Your task to perform on an android device: Clear the cart on target.com. Add "logitech g933" to the cart on target.com Image 0: 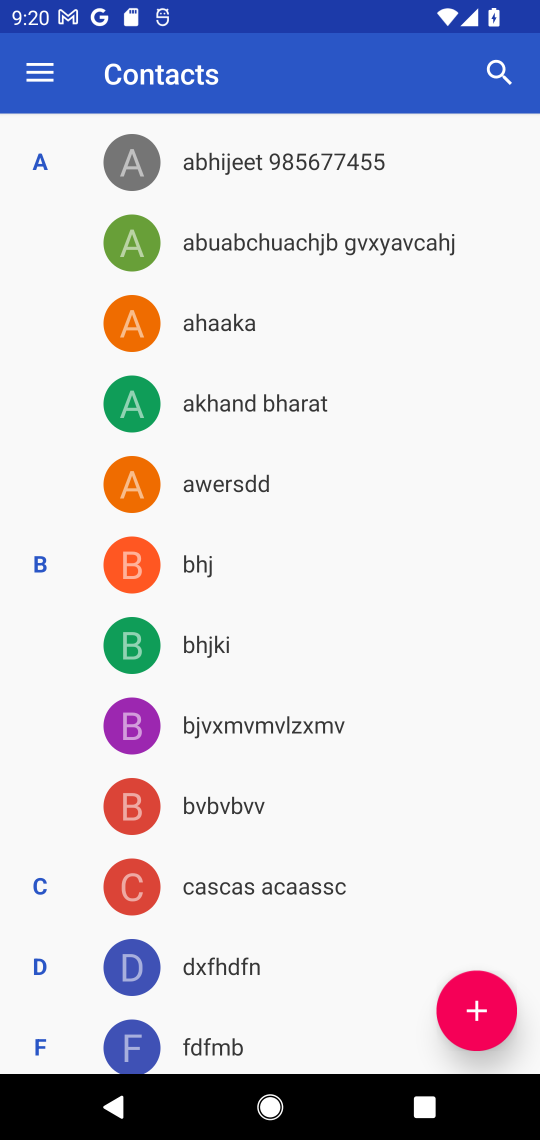
Step 0: press home button
Your task to perform on an android device: Clear the cart on target.com. Add "logitech g933" to the cart on target.com Image 1: 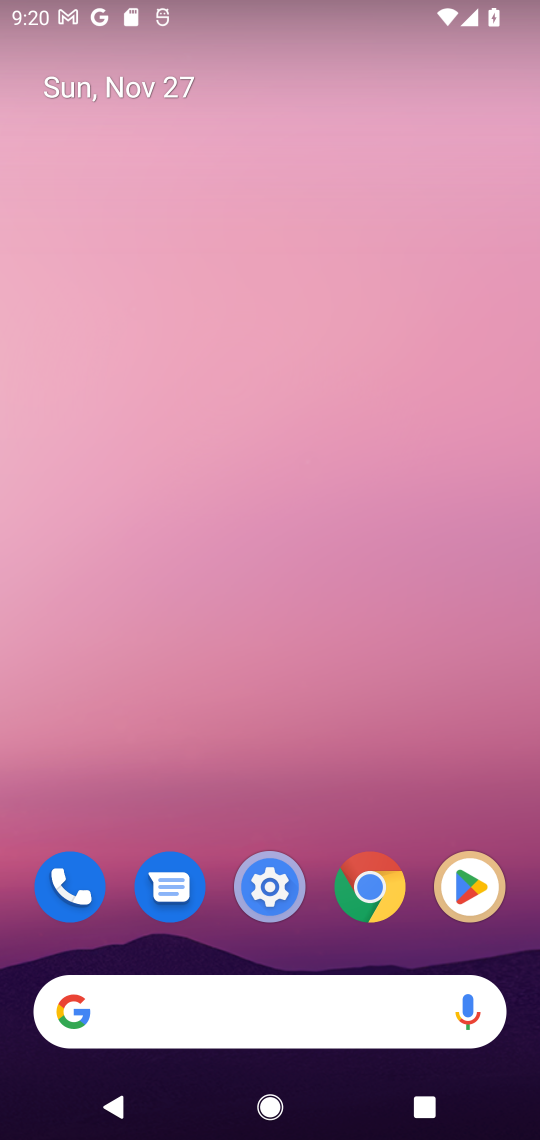
Step 1: click (276, 1025)
Your task to perform on an android device: Clear the cart on target.com. Add "logitech g933" to the cart on target.com Image 2: 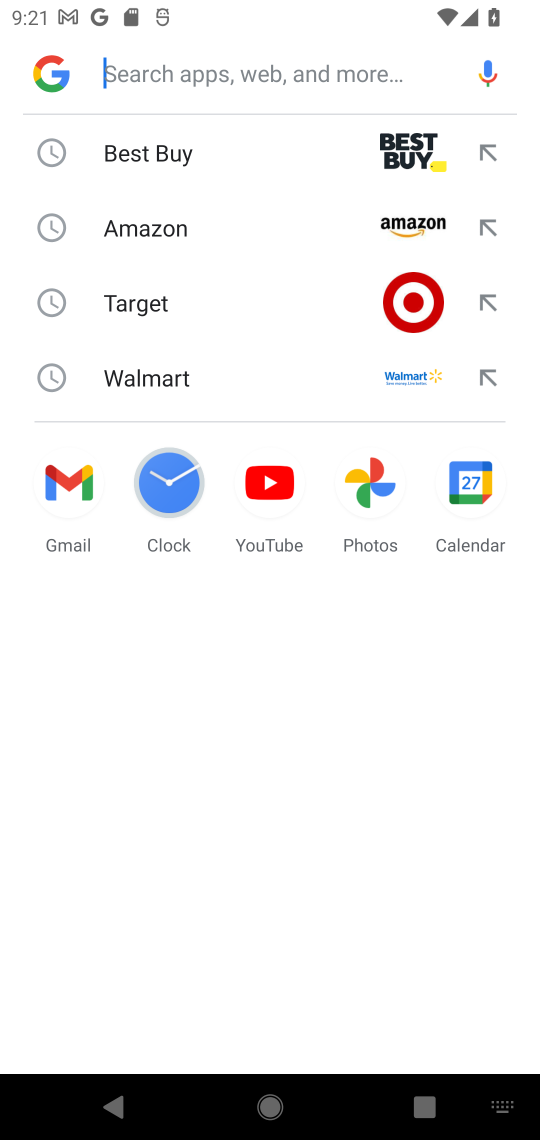
Step 2: click (276, 315)
Your task to perform on an android device: Clear the cart on target.com. Add "logitech g933" to the cart on target.com Image 3: 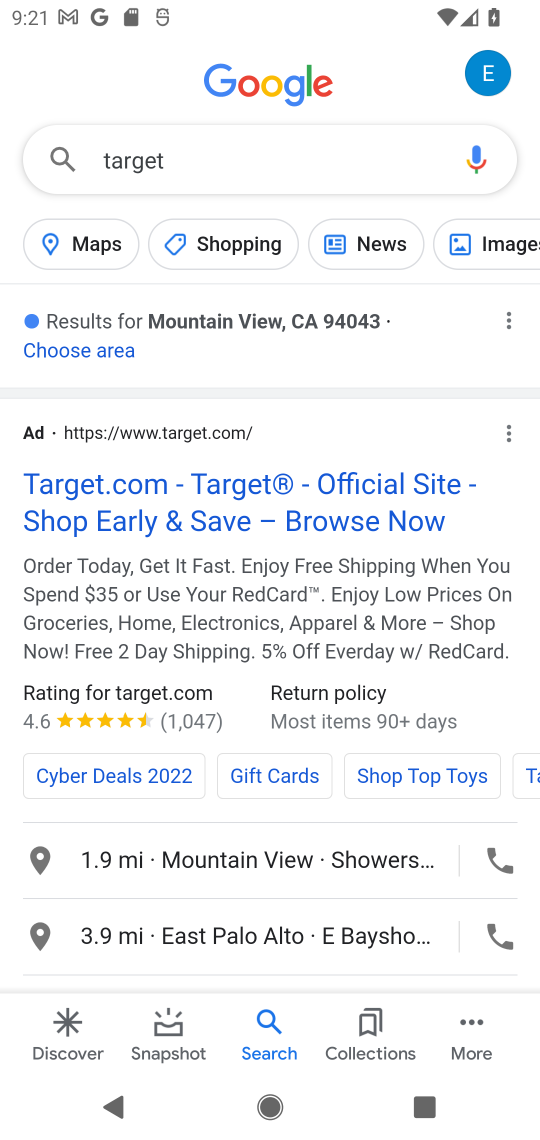
Step 3: click (310, 493)
Your task to perform on an android device: Clear the cart on target.com. Add "logitech g933" to the cart on target.com Image 4: 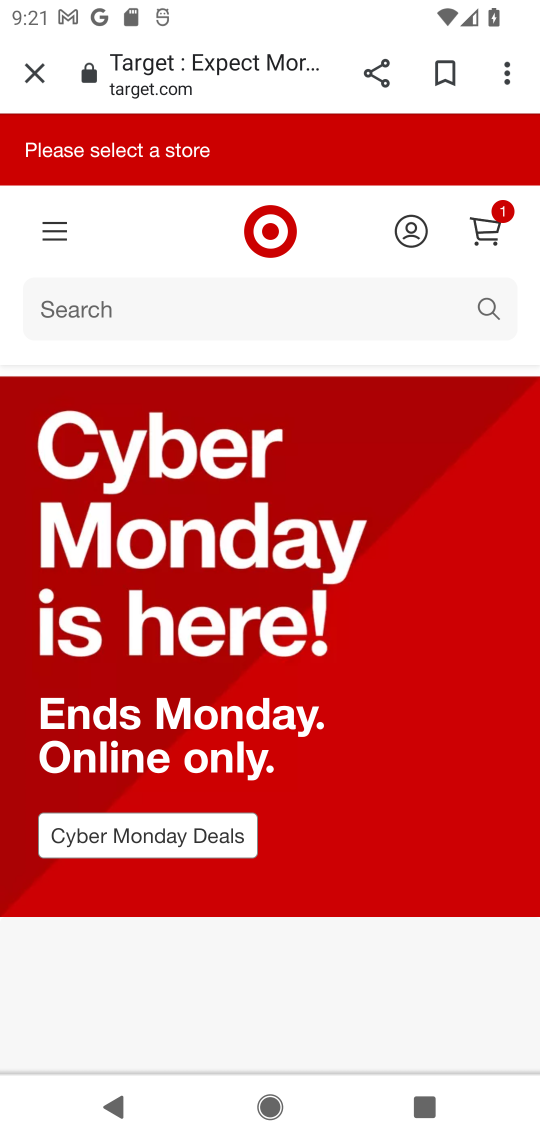
Step 4: click (264, 312)
Your task to perform on an android device: Clear the cart on target.com. Add "logitech g933" to the cart on target.com Image 5: 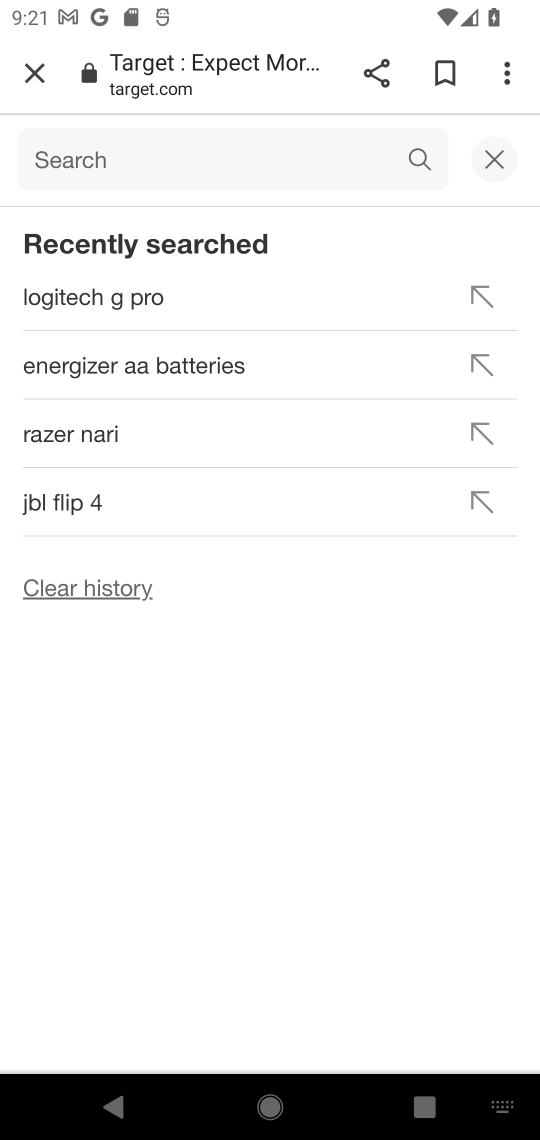
Step 5: type "logitech g933"
Your task to perform on an android device: Clear the cart on target.com. Add "logitech g933" to the cart on target.com Image 6: 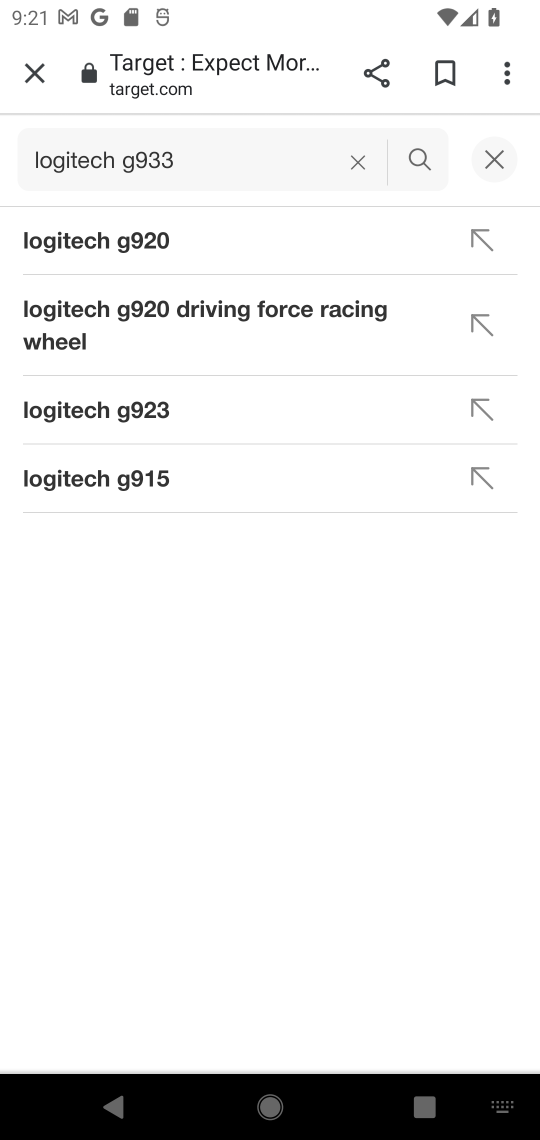
Step 6: click (437, 158)
Your task to perform on an android device: Clear the cart on target.com. Add "logitech g933" to the cart on target.com Image 7: 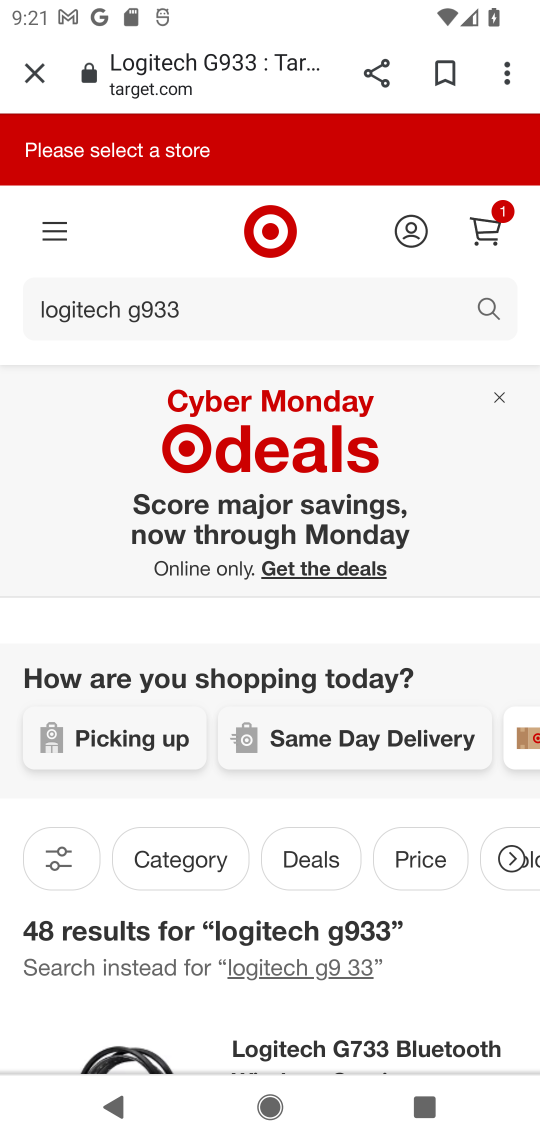
Step 7: drag from (435, 1007) to (391, 525)
Your task to perform on an android device: Clear the cart on target.com. Add "logitech g933" to the cart on target.com Image 8: 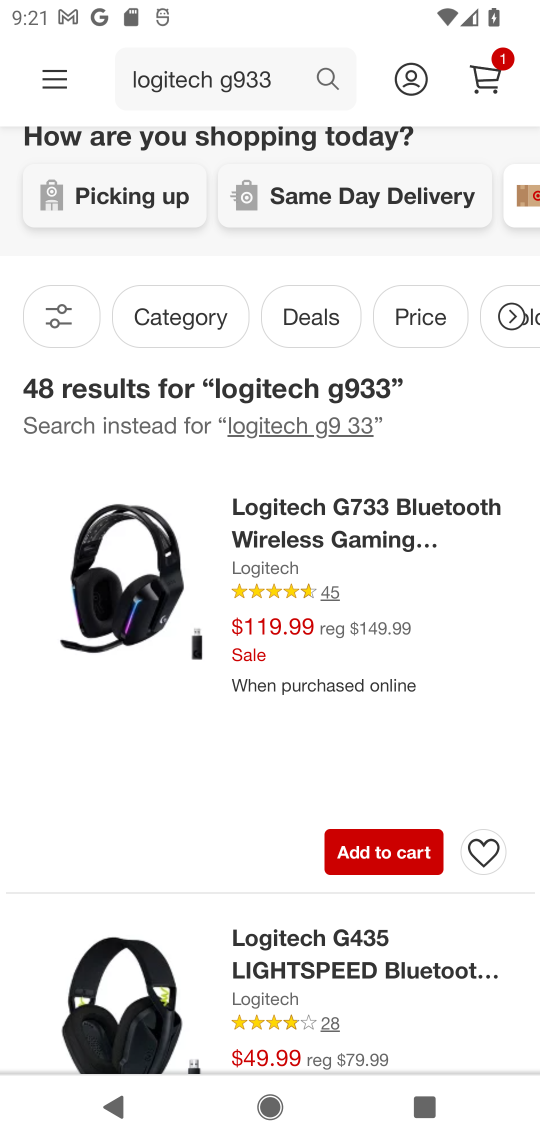
Step 8: click (419, 858)
Your task to perform on an android device: Clear the cart on target.com. Add "logitech g933" to the cart on target.com Image 9: 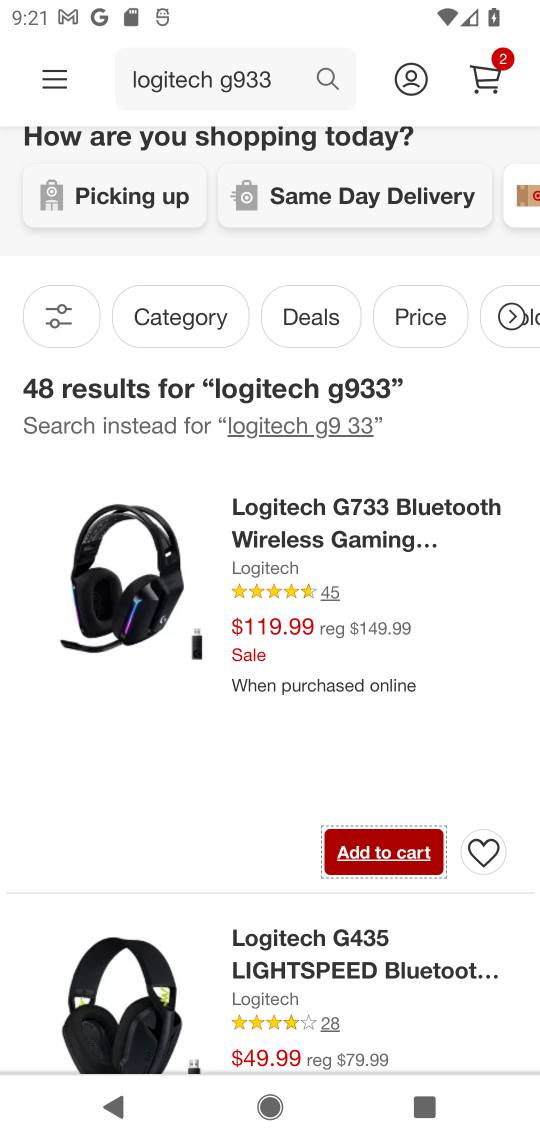
Step 9: click (419, 858)
Your task to perform on an android device: Clear the cart on target.com. Add "logitech g933" to the cart on target.com Image 10: 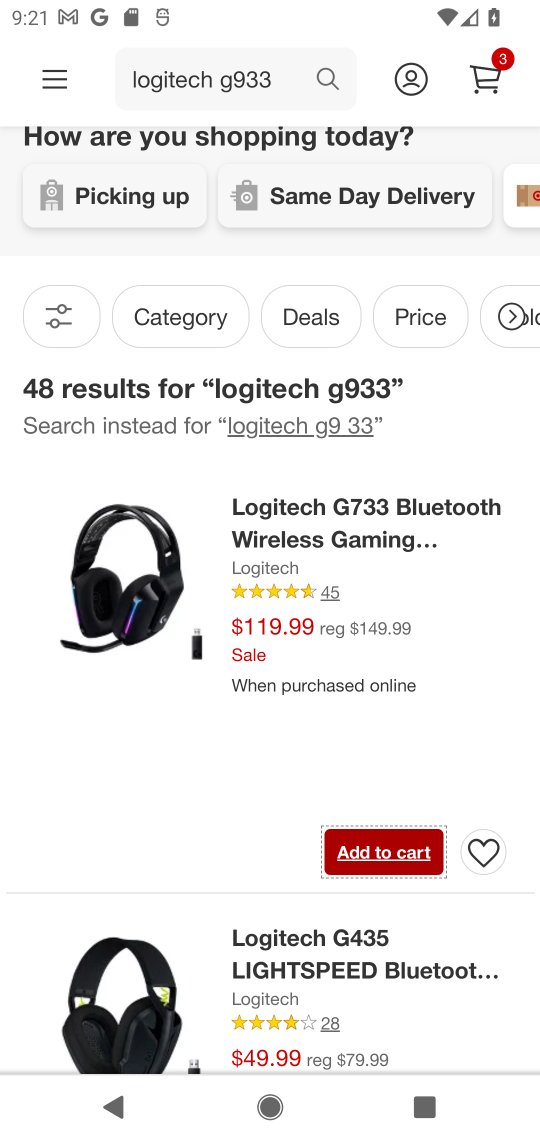
Step 10: task complete